Your task to perform on an android device: change the clock style Image 0: 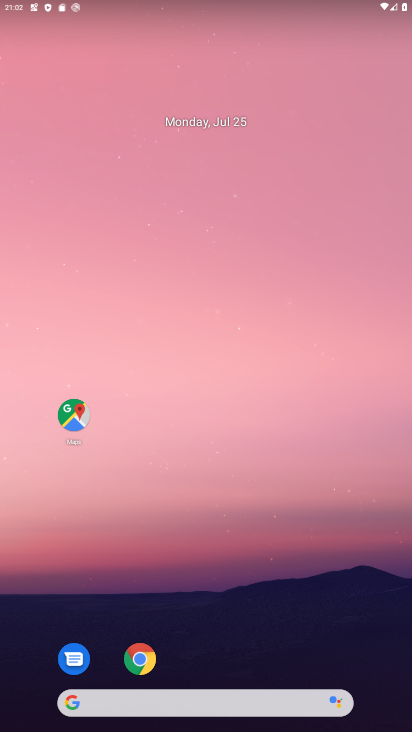
Step 0: drag from (195, 652) to (269, 160)
Your task to perform on an android device: change the clock style Image 1: 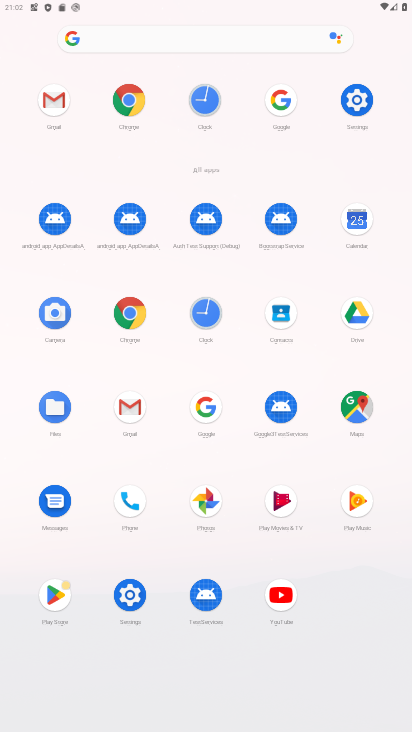
Step 1: click (196, 113)
Your task to perform on an android device: change the clock style Image 2: 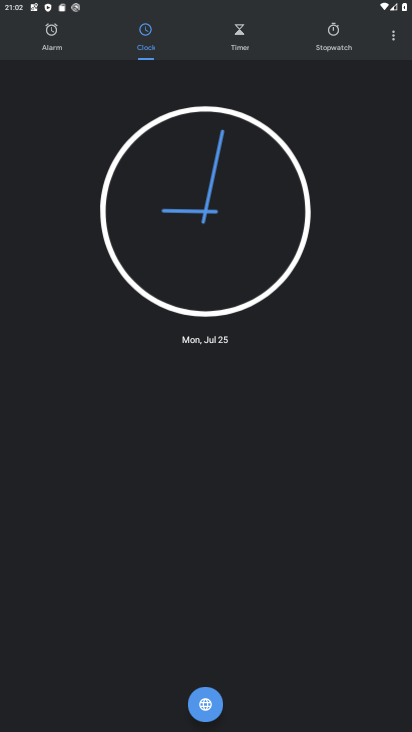
Step 2: click (383, 34)
Your task to perform on an android device: change the clock style Image 3: 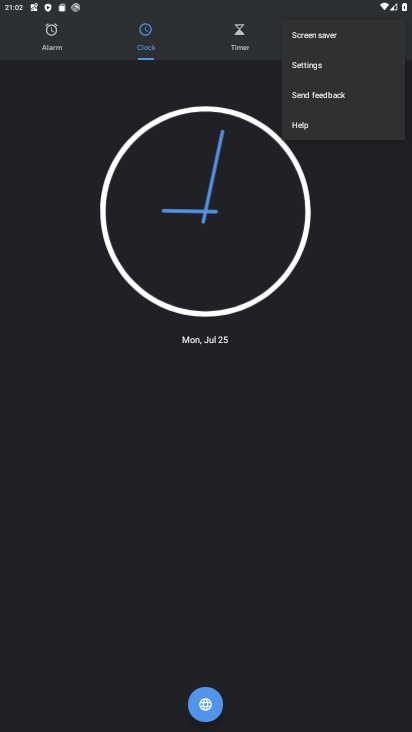
Step 3: click (341, 69)
Your task to perform on an android device: change the clock style Image 4: 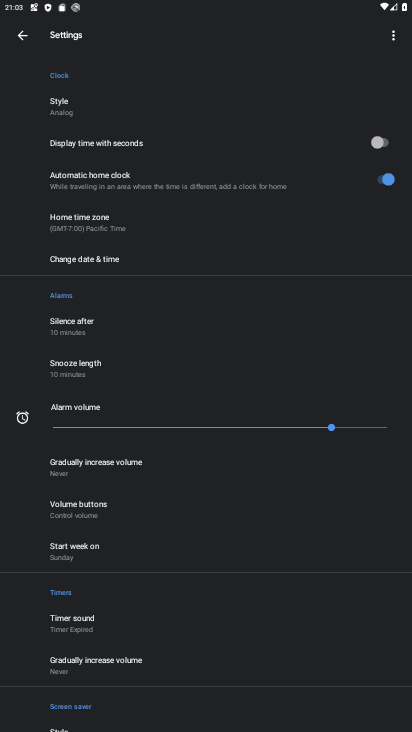
Step 4: click (83, 115)
Your task to perform on an android device: change the clock style Image 5: 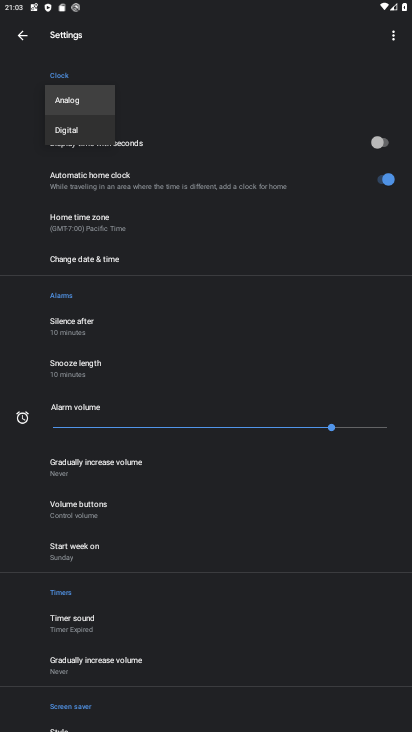
Step 5: click (84, 130)
Your task to perform on an android device: change the clock style Image 6: 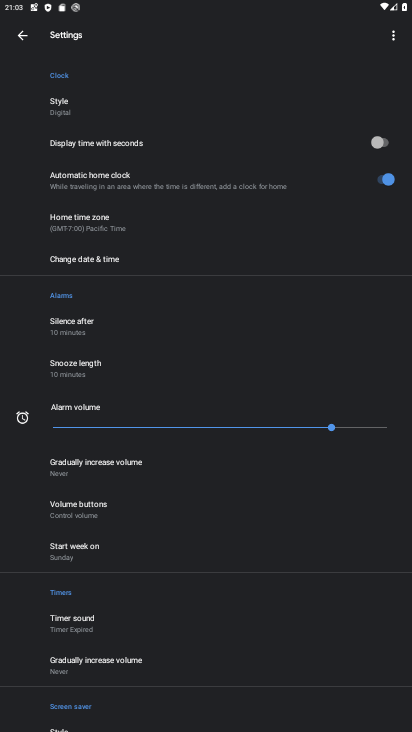
Step 6: task complete